Your task to perform on an android device: Open notification settings Image 0: 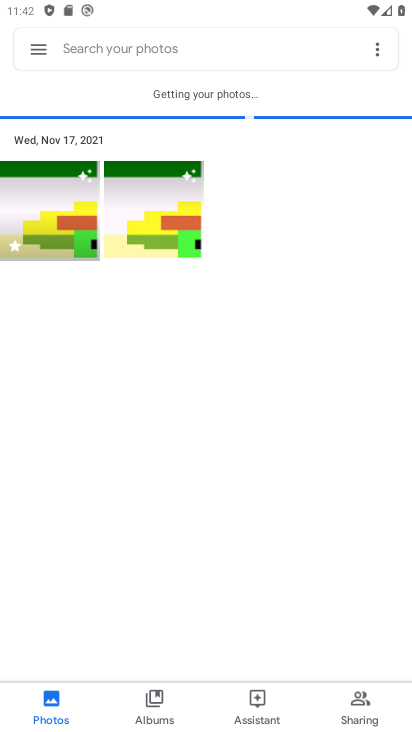
Step 0: press home button
Your task to perform on an android device: Open notification settings Image 1: 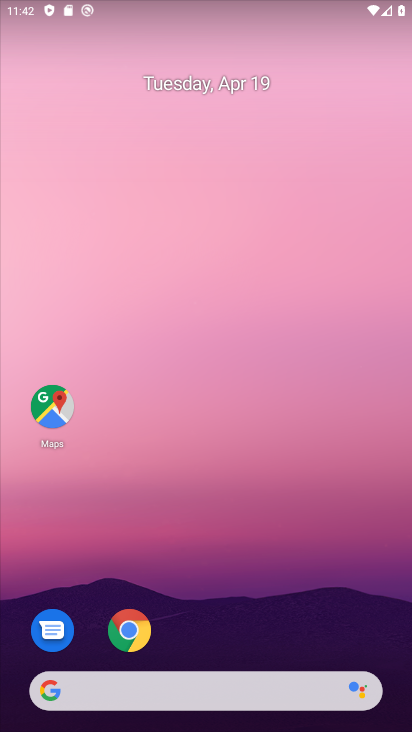
Step 1: drag from (255, 633) to (302, 193)
Your task to perform on an android device: Open notification settings Image 2: 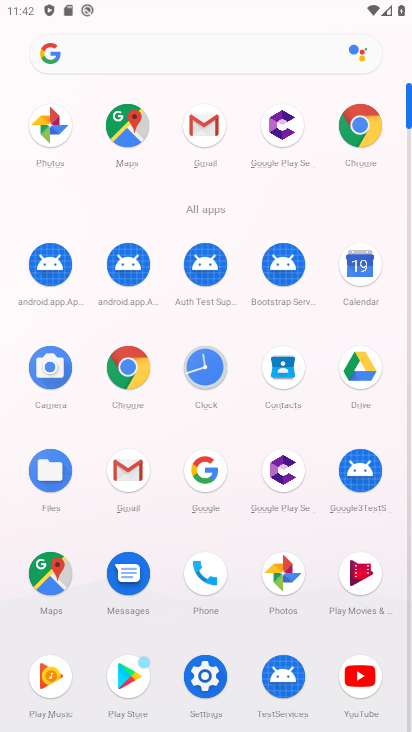
Step 2: click (203, 672)
Your task to perform on an android device: Open notification settings Image 3: 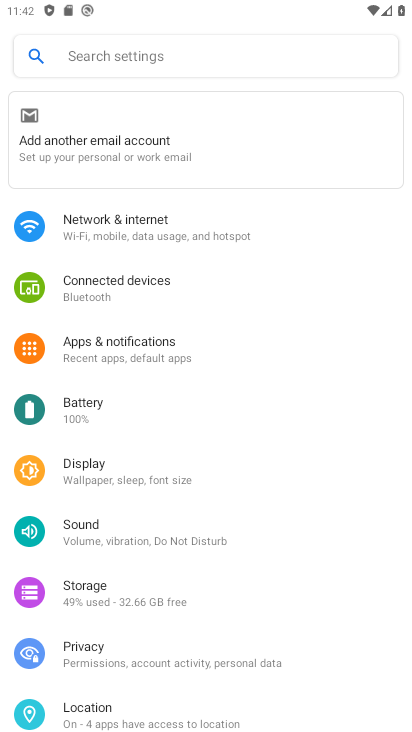
Step 3: click (138, 348)
Your task to perform on an android device: Open notification settings Image 4: 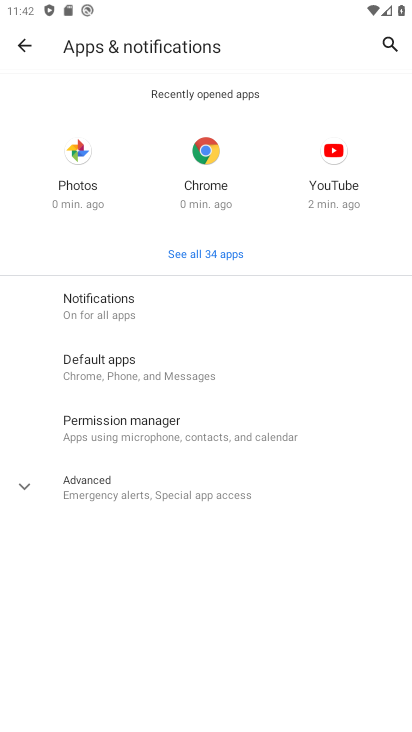
Step 4: click (88, 314)
Your task to perform on an android device: Open notification settings Image 5: 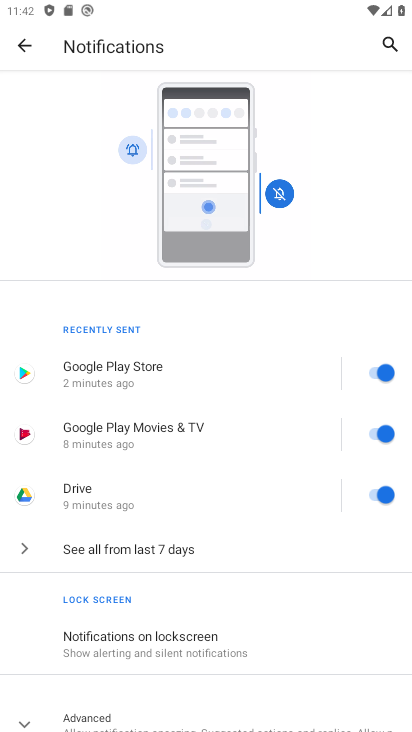
Step 5: task complete